Your task to perform on an android device: Is it going to rain today? Image 0: 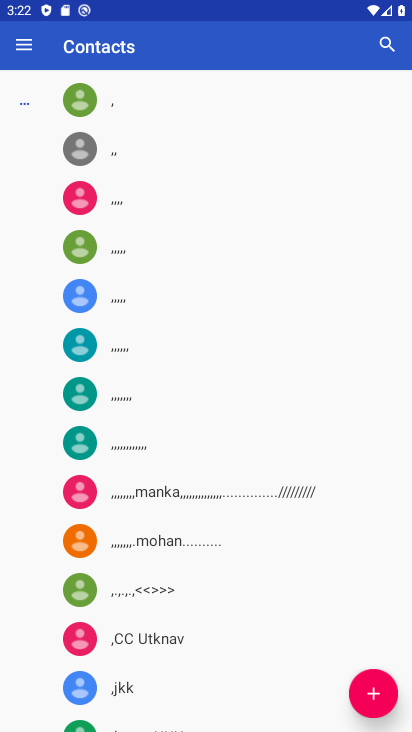
Step 0: press home button
Your task to perform on an android device: Is it going to rain today? Image 1: 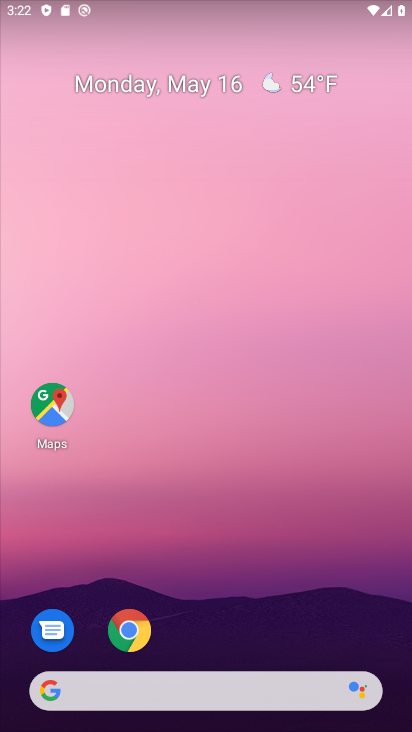
Step 1: drag from (275, 650) to (284, 91)
Your task to perform on an android device: Is it going to rain today? Image 2: 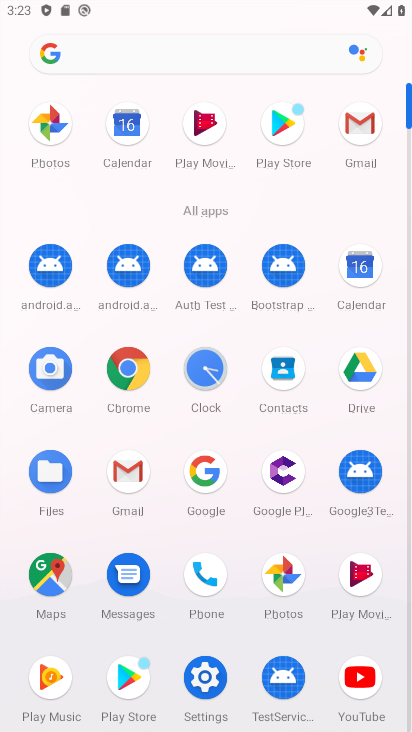
Step 2: click (122, 370)
Your task to perform on an android device: Is it going to rain today? Image 3: 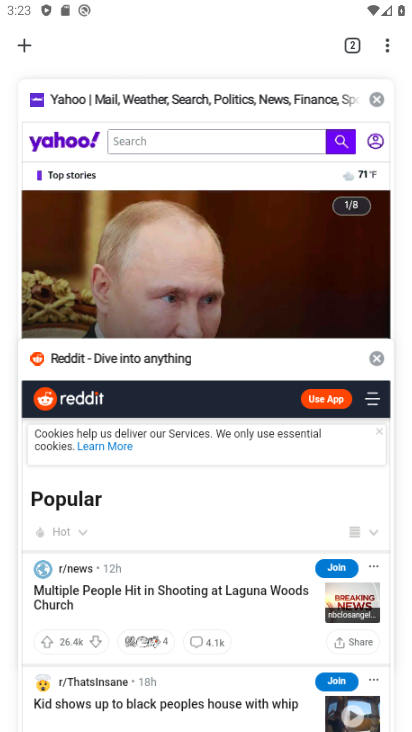
Step 3: click (27, 52)
Your task to perform on an android device: Is it going to rain today? Image 4: 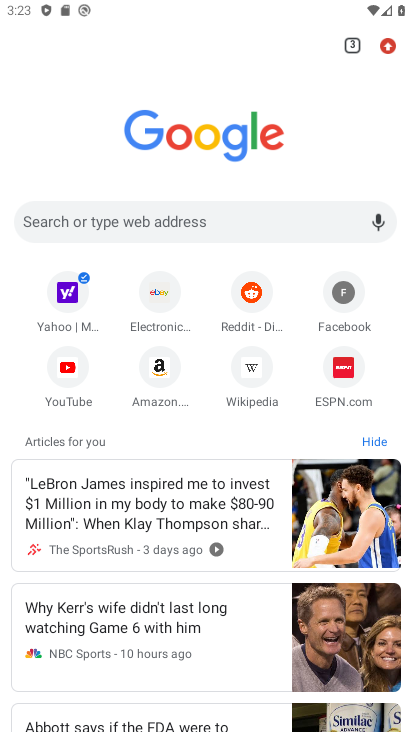
Step 4: click (140, 224)
Your task to perform on an android device: Is it going to rain today? Image 5: 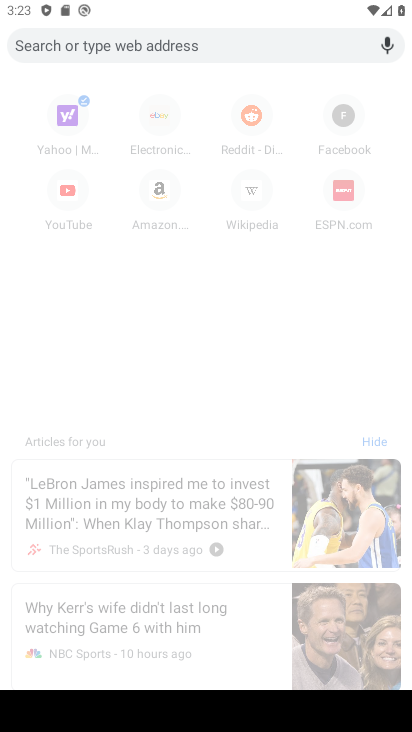
Step 5: type "Is it going to rain today?"
Your task to perform on an android device: Is it going to rain today? Image 6: 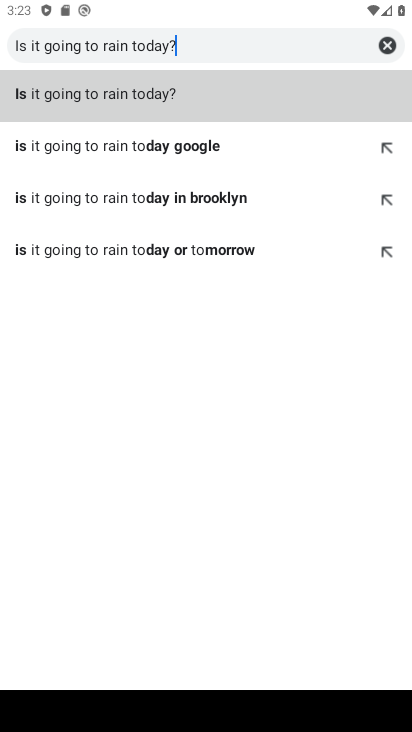
Step 6: click (148, 101)
Your task to perform on an android device: Is it going to rain today? Image 7: 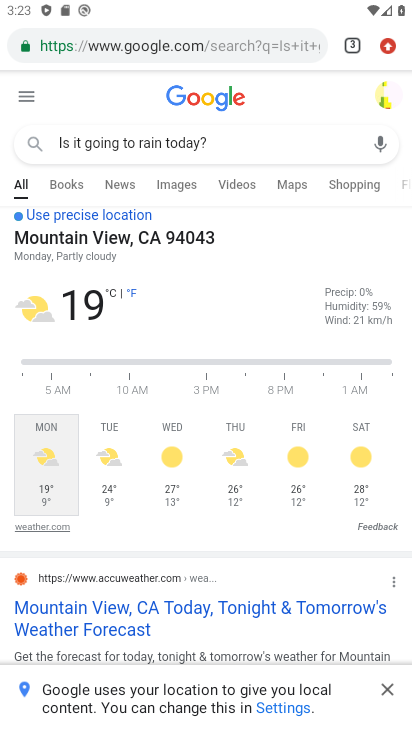
Step 7: task complete